Your task to perform on an android device: toggle location history Image 0: 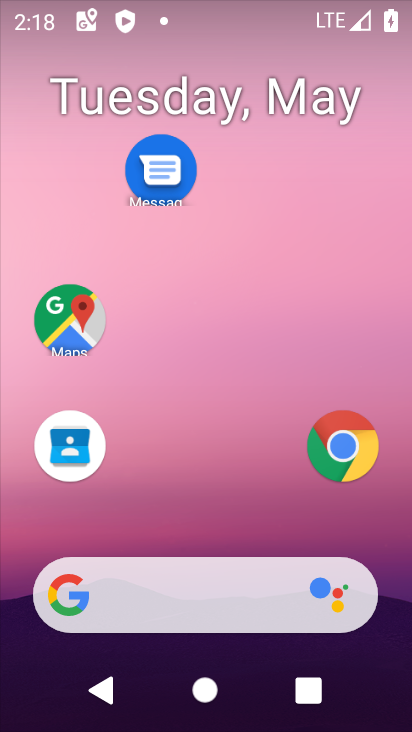
Step 0: drag from (185, 541) to (154, 88)
Your task to perform on an android device: toggle location history Image 1: 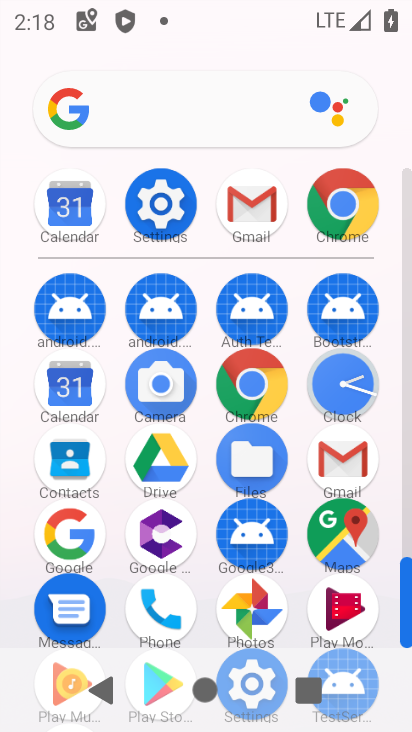
Step 1: click (171, 182)
Your task to perform on an android device: toggle location history Image 2: 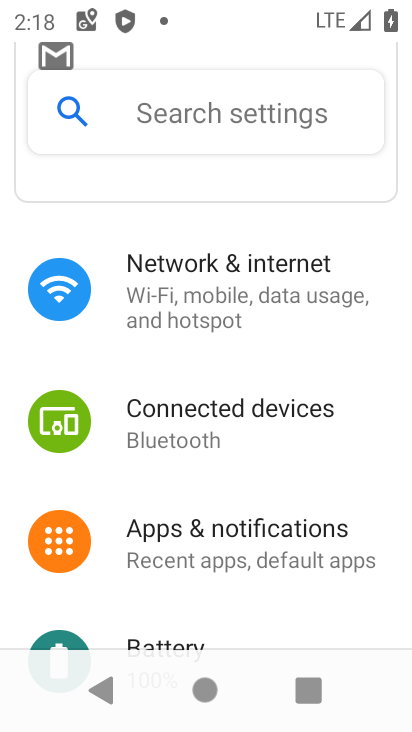
Step 2: drag from (196, 531) to (143, 42)
Your task to perform on an android device: toggle location history Image 3: 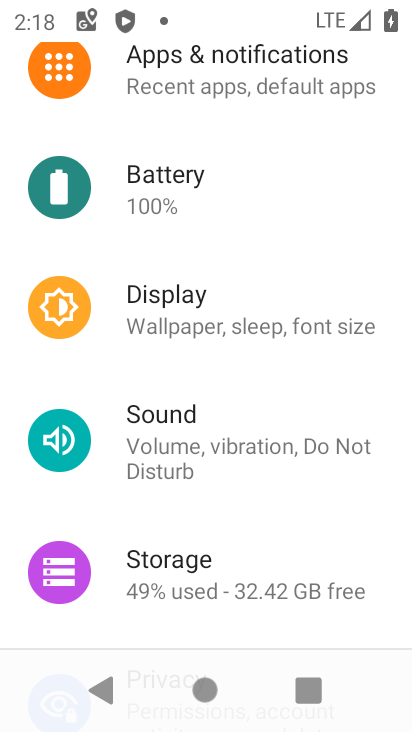
Step 3: drag from (230, 507) to (223, 128)
Your task to perform on an android device: toggle location history Image 4: 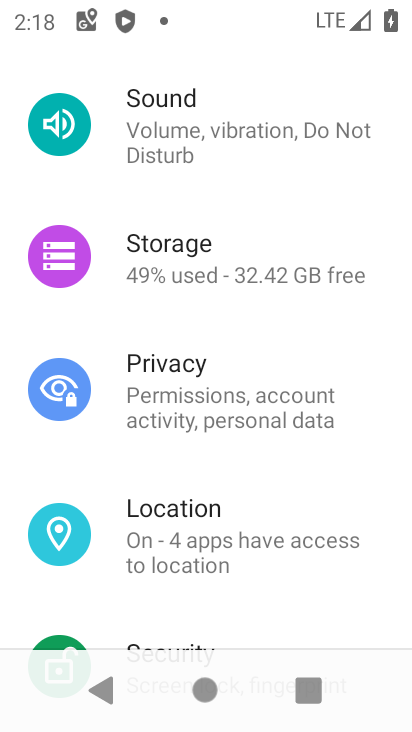
Step 4: drag from (227, 522) to (193, 239)
Your task to perform on an android device: toggle location history Image 5: 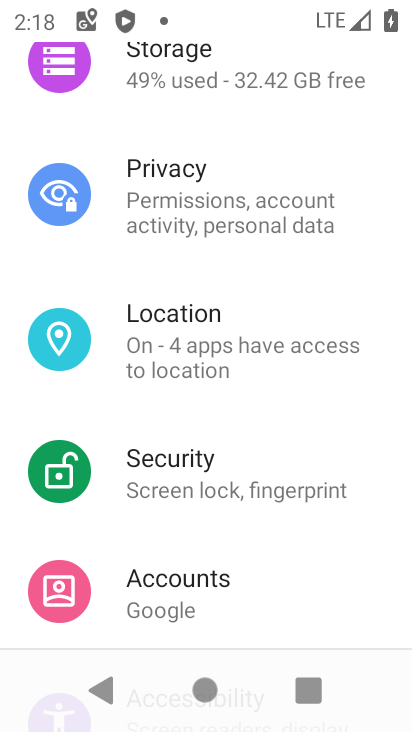
Step 5: click (146, 353)
Your task to perform on an android device: toggle location history Image 6: 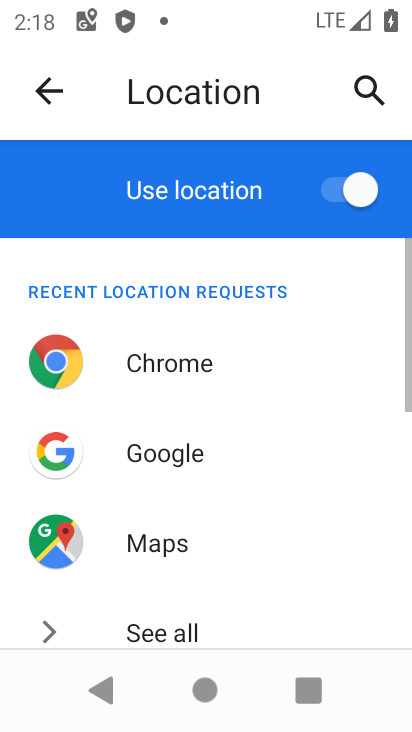
Step 6: drag from (161, 541) to (99, 2)
Your task to perform on an android device: toggle location history Image 7: 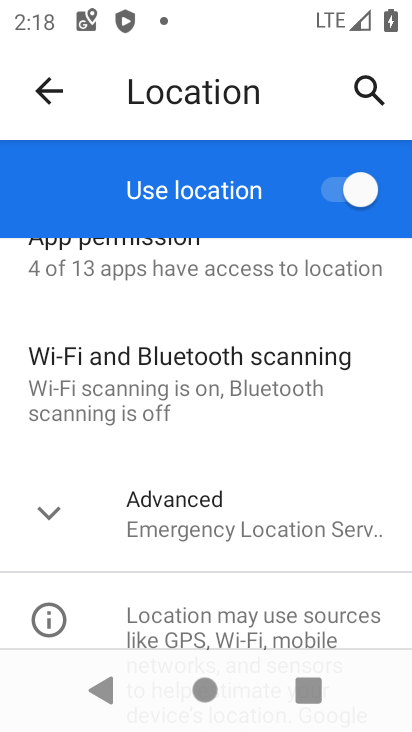
Step 7: click (171, 564)
Your task to perform on an android device: toggle location history Image 8: 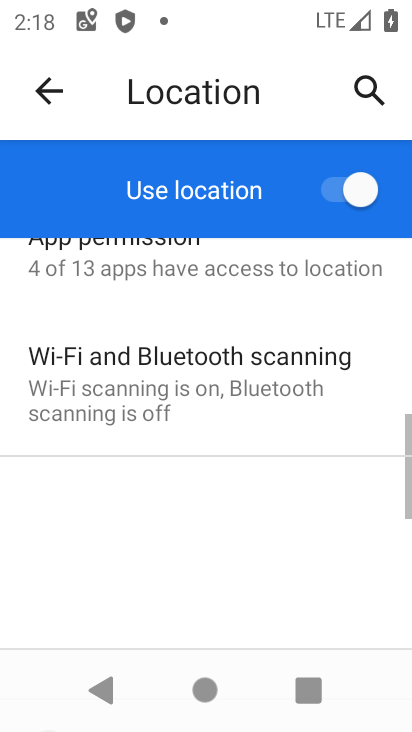
Step 8: drag from (168, 564) to (106, 189)
Your task to perform on an android device: toggle location history Image 9: 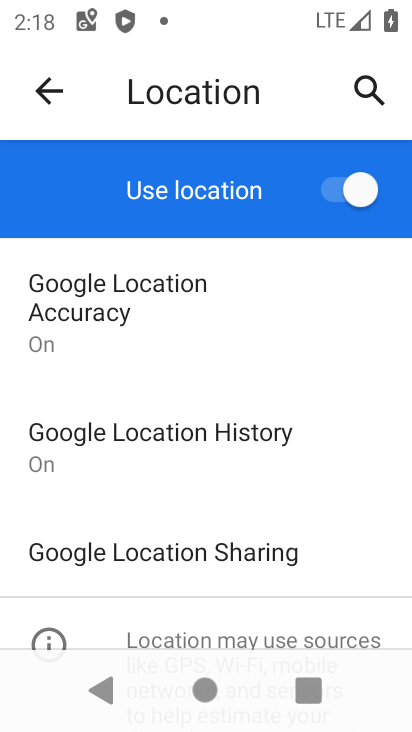
Step 9: click (204, 442)
Your task to perform on an android device: toggle location history Image 10: 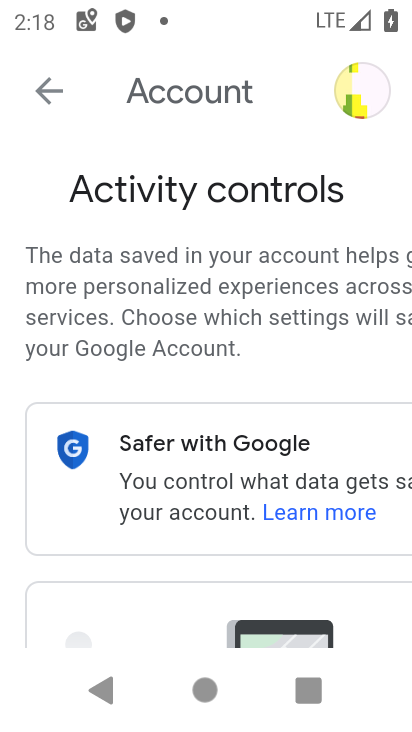
Step 10: drag from (323, 519) to (259, 17)
Your task to perform on an android device: toggle location history Image 11: 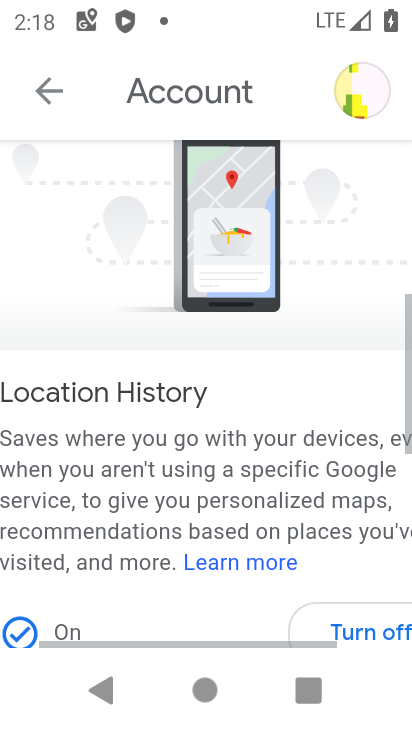
Step 11: drag from (219, 453) to (217, 291)
Your task to perform on an android device: toggle location history Image 12: 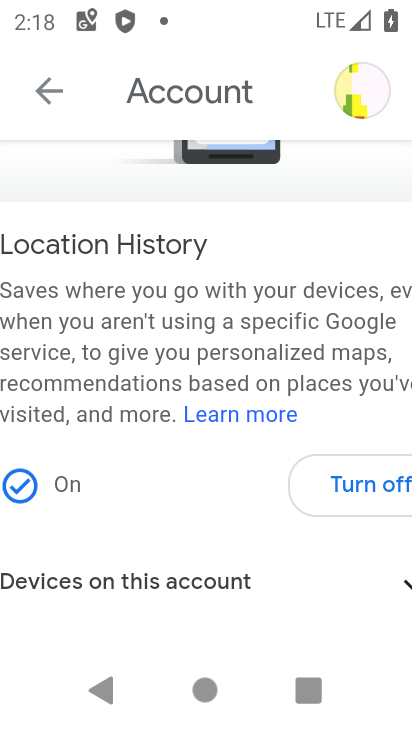
Step 12: click (308, 500)
Your task to perform on an android device: toggle location history Image 13: 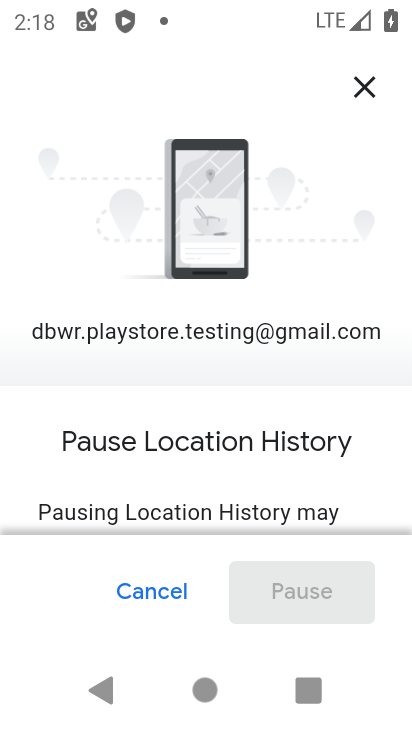
Step 13: drag from (291, 438) to (191, 10)
Your task to perform on an android device: toggle location history Image 14: 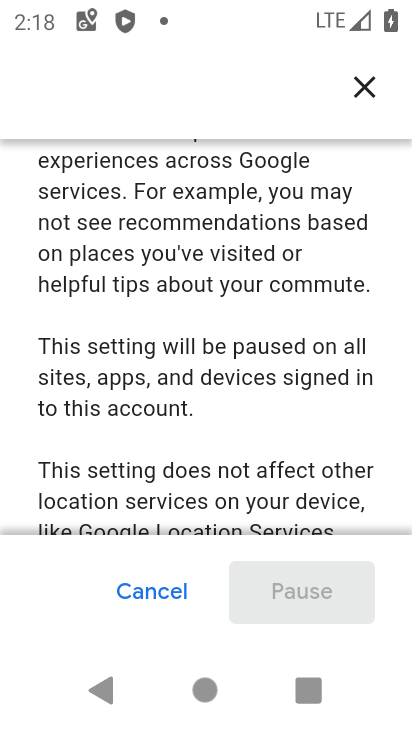
Step 14: drag from (233, 405) to (174, 19)
Your task to perform on an android device: toggle location history Image 15: 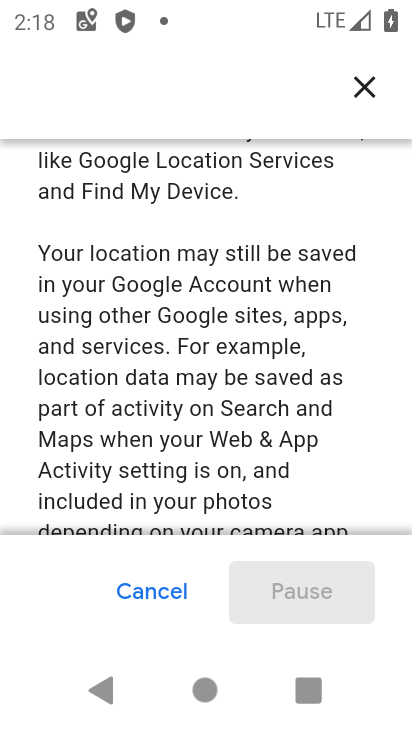
Step 15: drag from (254, 496) to (196, 27)
Your task to perform on an android device: toggle location history Image 16: 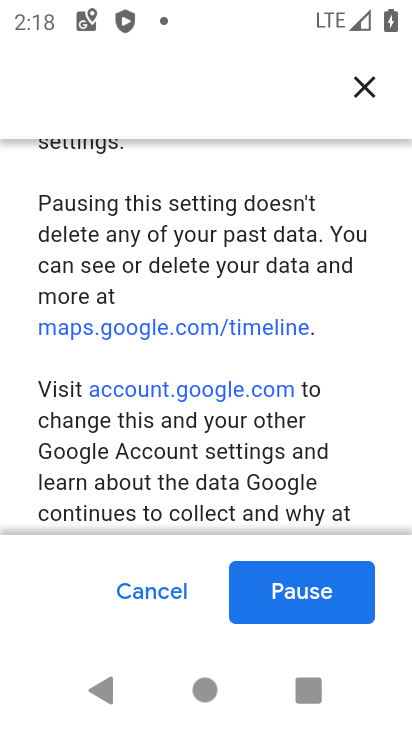
Step 16: click (296, 607)
Your task to perform on an android device: toggle location history Image 17: 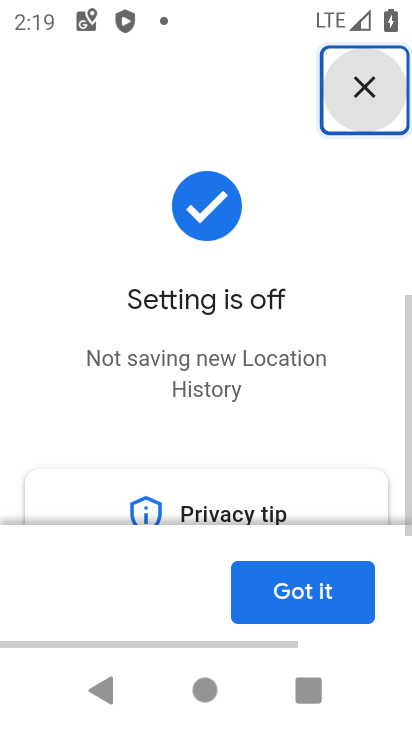
Step 17: click (296, 605)
Your task to perform on an android device: toggle location history Image 18: 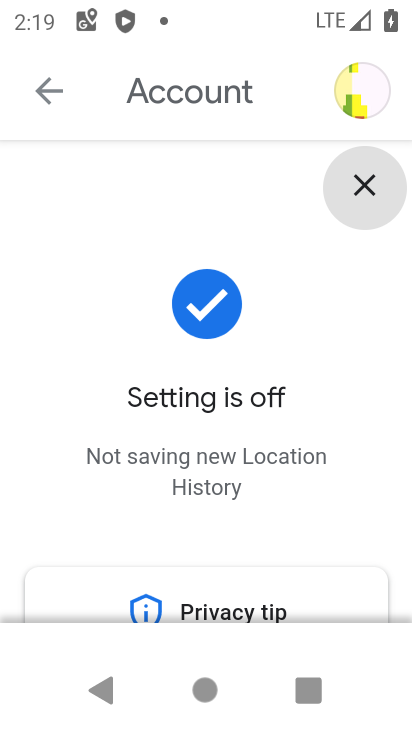
Step 18: task complete